Your task to perform on an android device: Is it going to rain this weekend? Image 0: 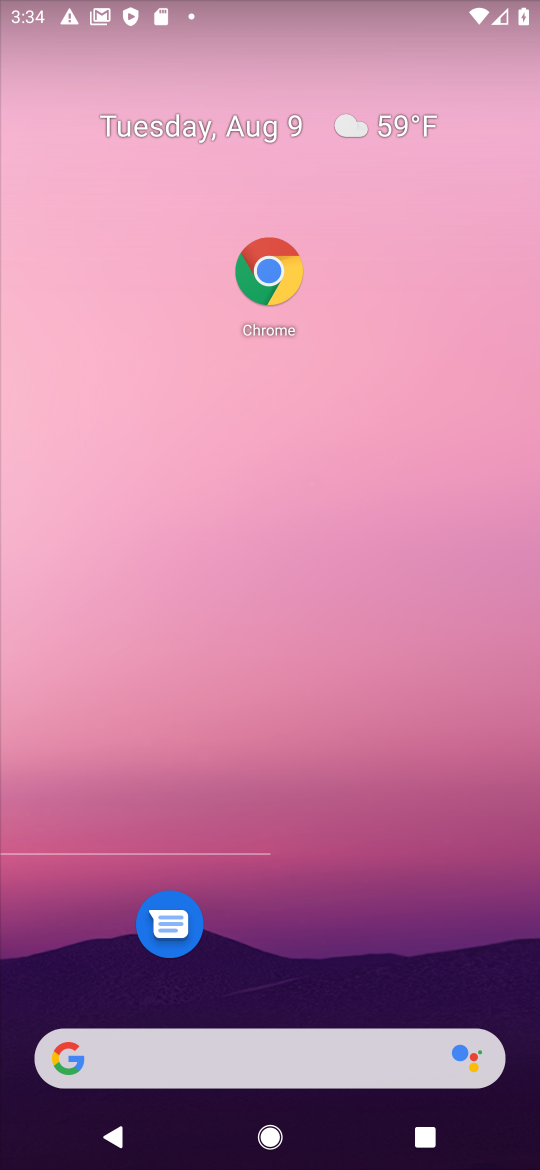
Step 0: press back button
Your task to perform on an android device: Is it going to rain this weekend? Image 1: 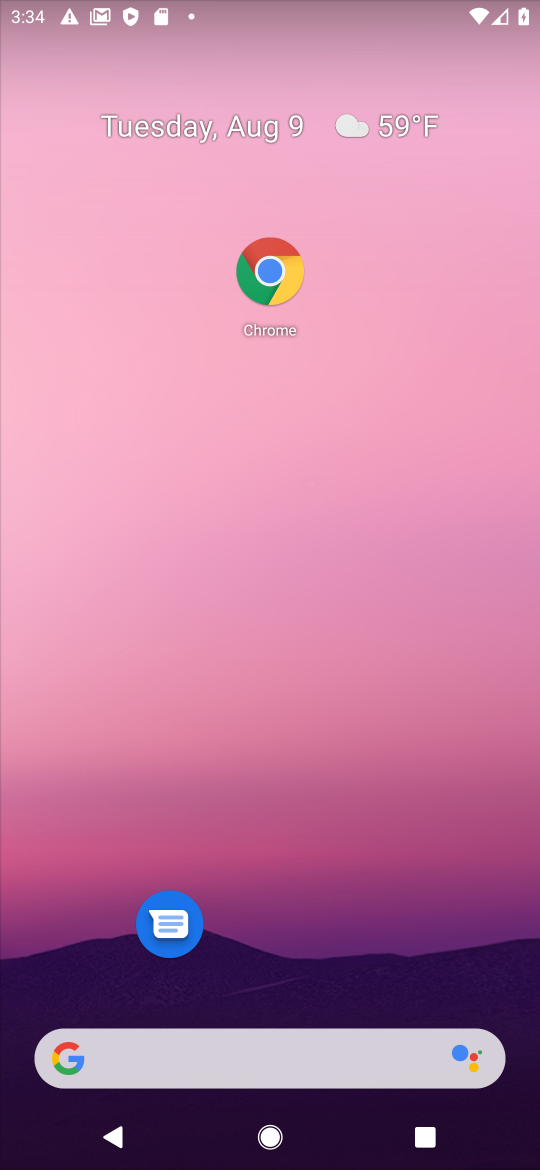
Step 1: drag from (348, 1067) to (220, 83)
Your task to perform on an android device: Is it going to rain this weekend? Image 2: 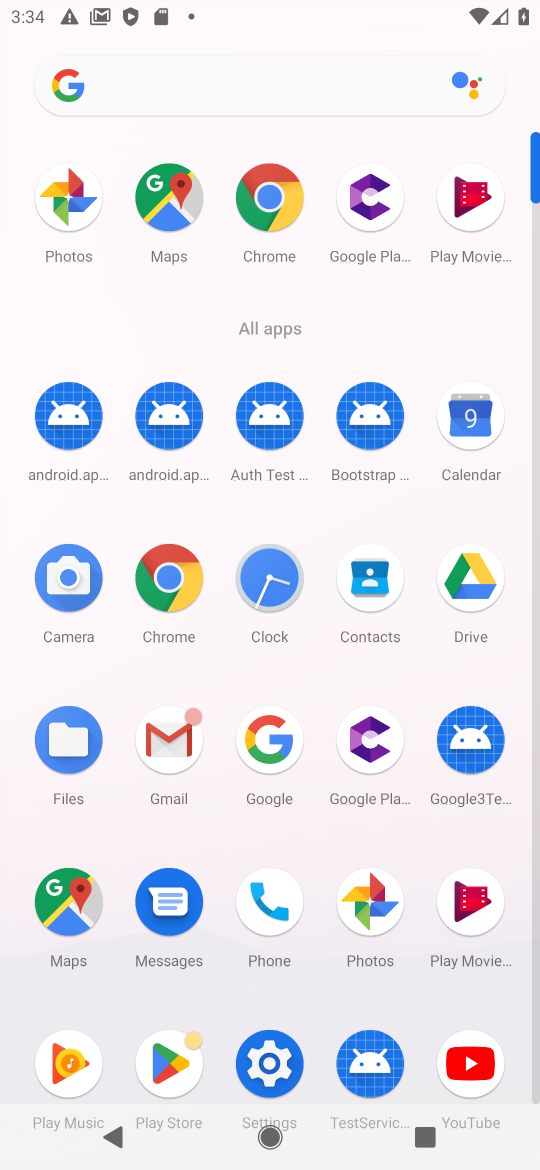
Step 2: click (179, 573)
Your task to perform on an android device: Is it going to rain this weekend? Image 3: 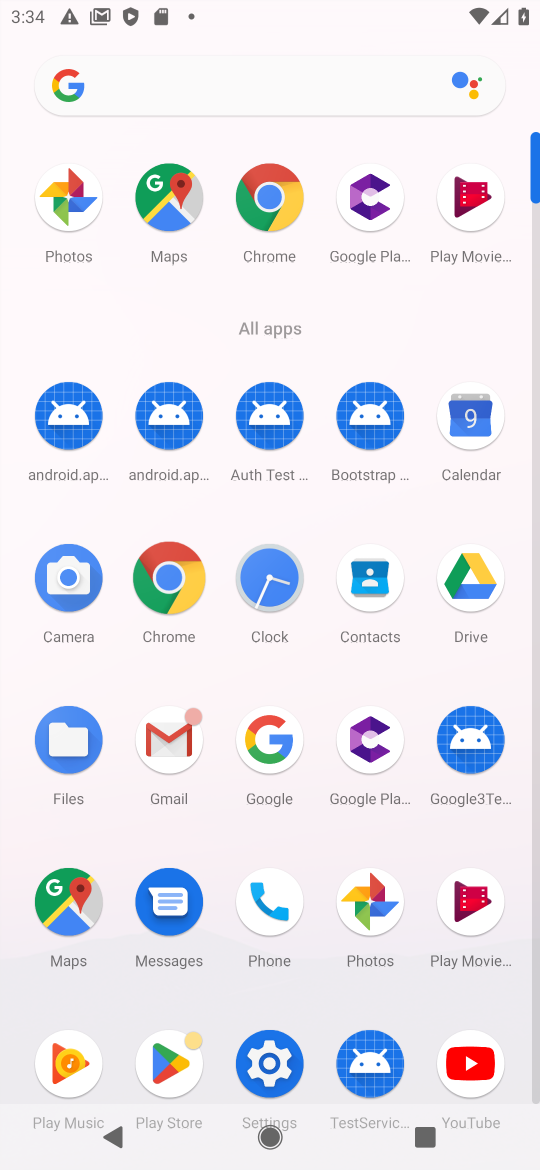
Step 3: click (172, 573)
Your task to perform on an android device: Is it going to rain this weekend? Image 4: 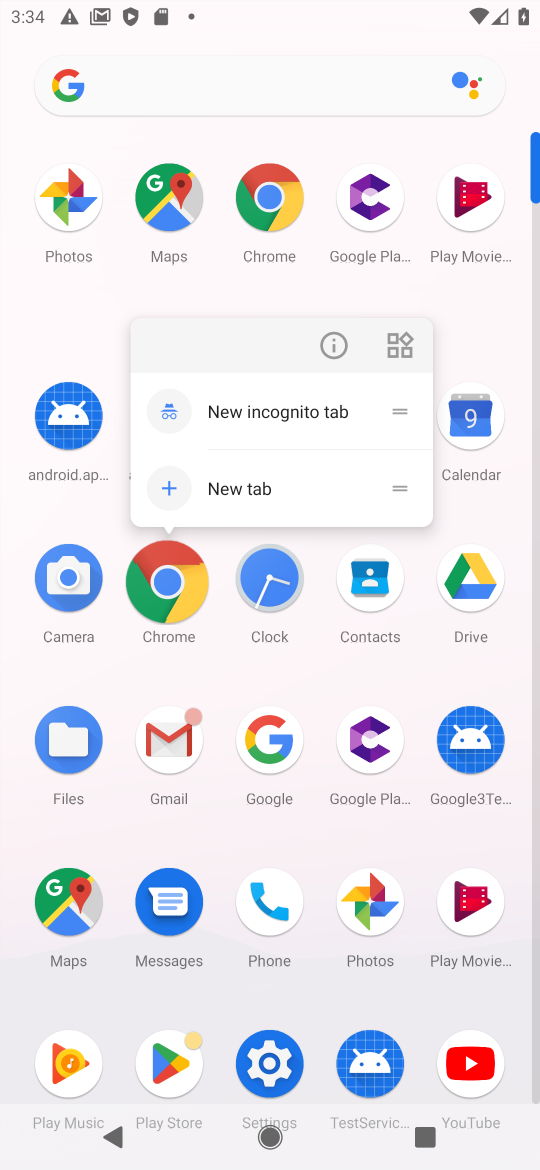
Step 4: click (181, 563)
Your task to perform on an android device: Is it going to rain this weekend? Image 5: 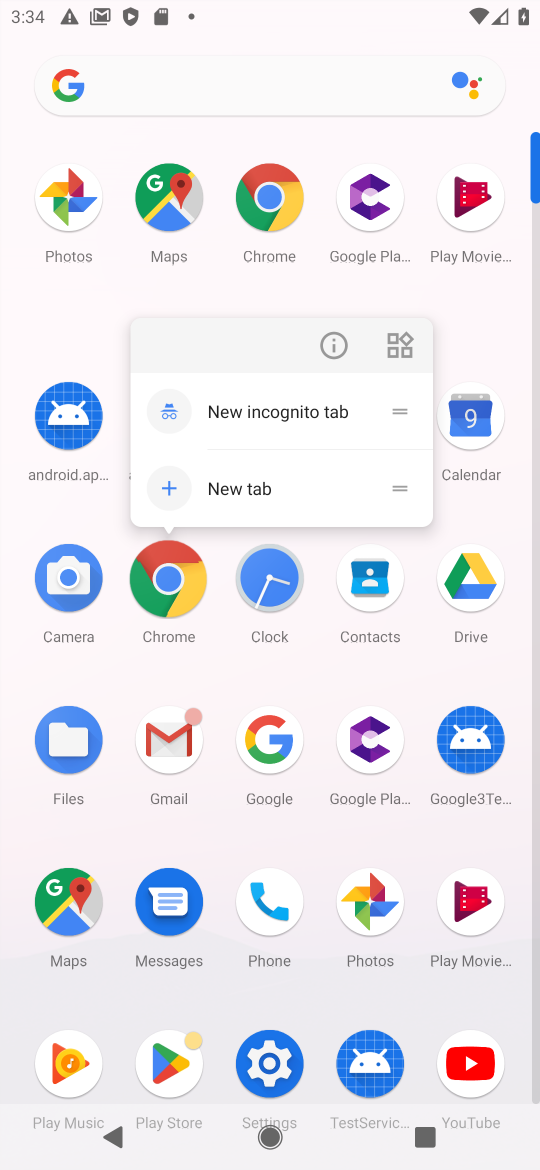
Step 5: click (181, 566)
Your task to perform on an android device: Is it going to rain this weekend? Image 6: 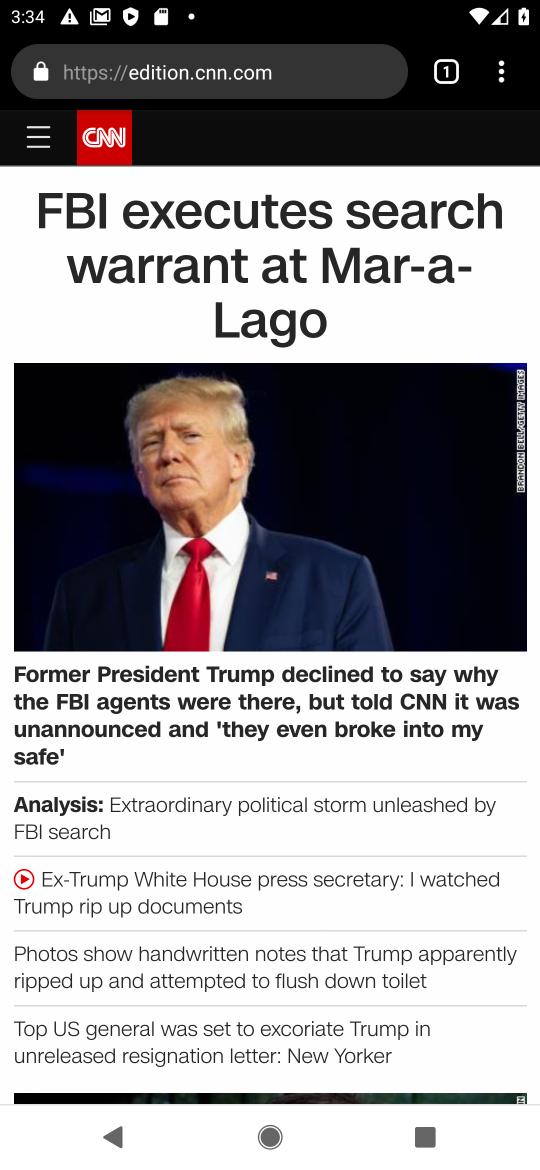
Step 6: click (501, 77)
Your task to perform on an android device: Is it going to rain this weekend? Image 7: 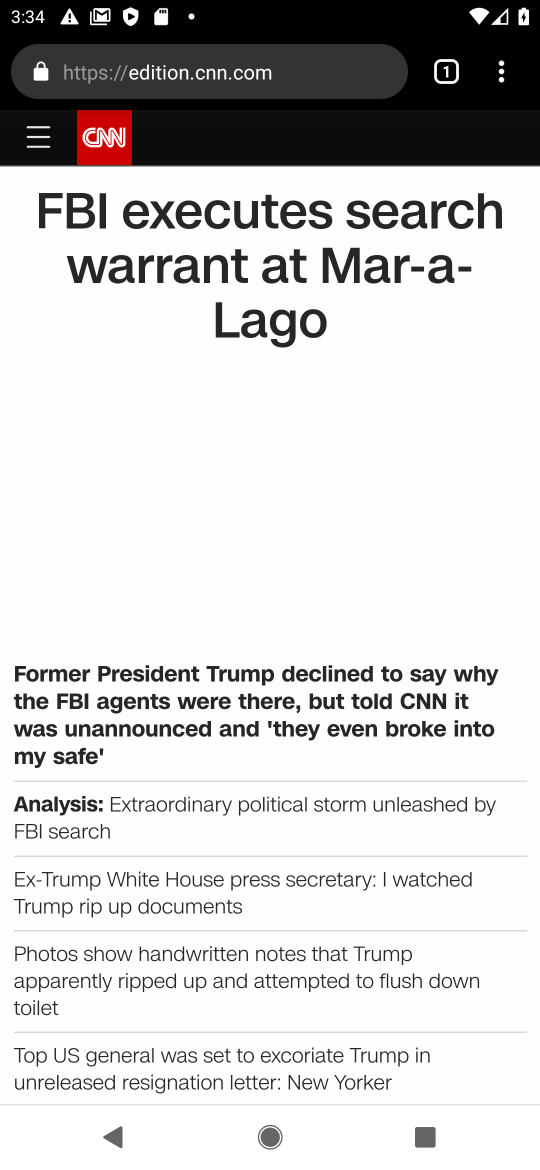
Step 7: click (489, 57)
Your task to perform on an android device: Is it going to rain this weekend? Image 8: 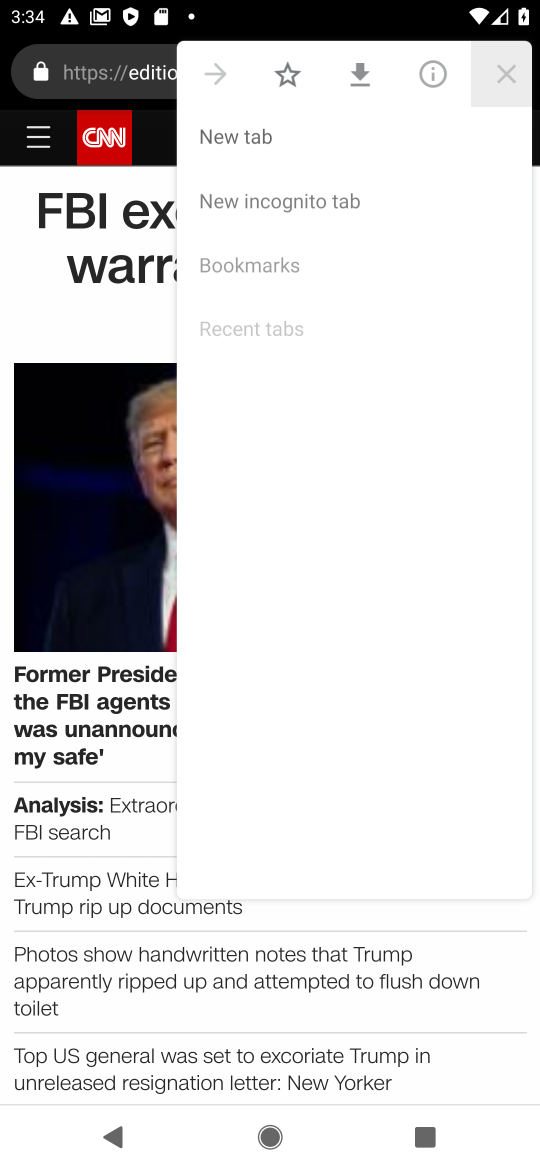
Step 8: click (508, 73)
Your task to perform on an android device: Is it going to rain this weekend? Image 9: 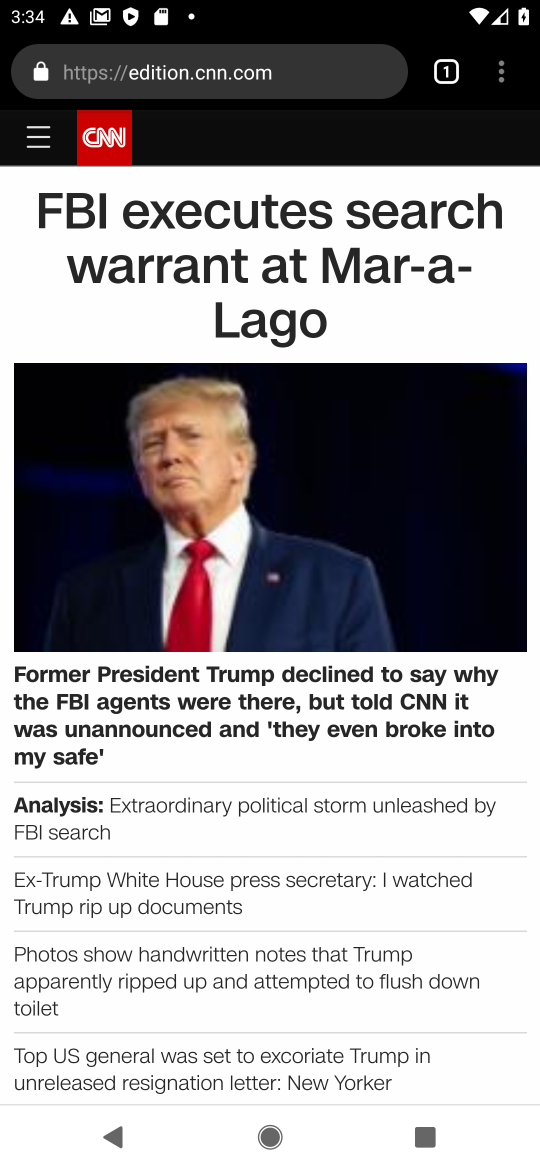
Step 9: drag from (508, 78) to (234, 143)
Your task to perform on an android device: Is it going to rain this weekend? Image 10: 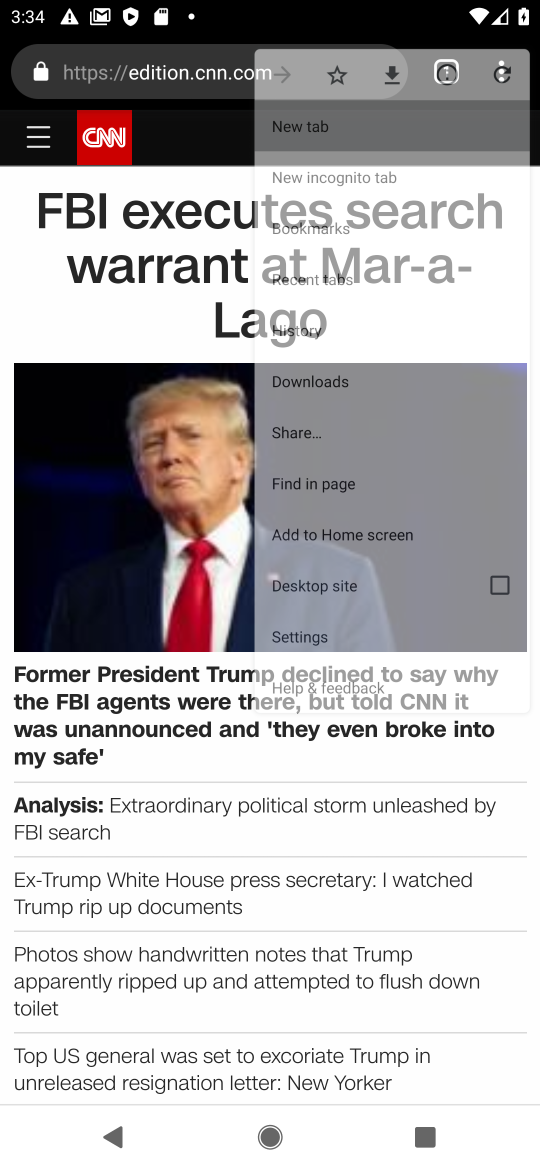
Step 10: click (233, 152)
Your task to perform on an android device: Is it going to rain this weekend? Image 11: 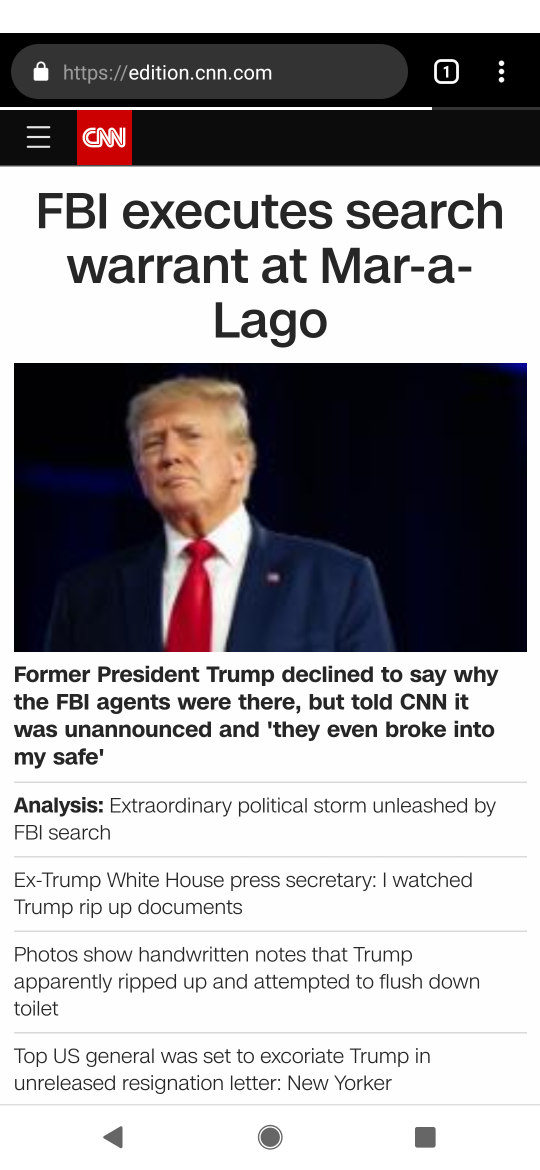
Step 11: click (233, 152)
Your task to perform on an android device: Is it going to rain this weekend? Image 12: 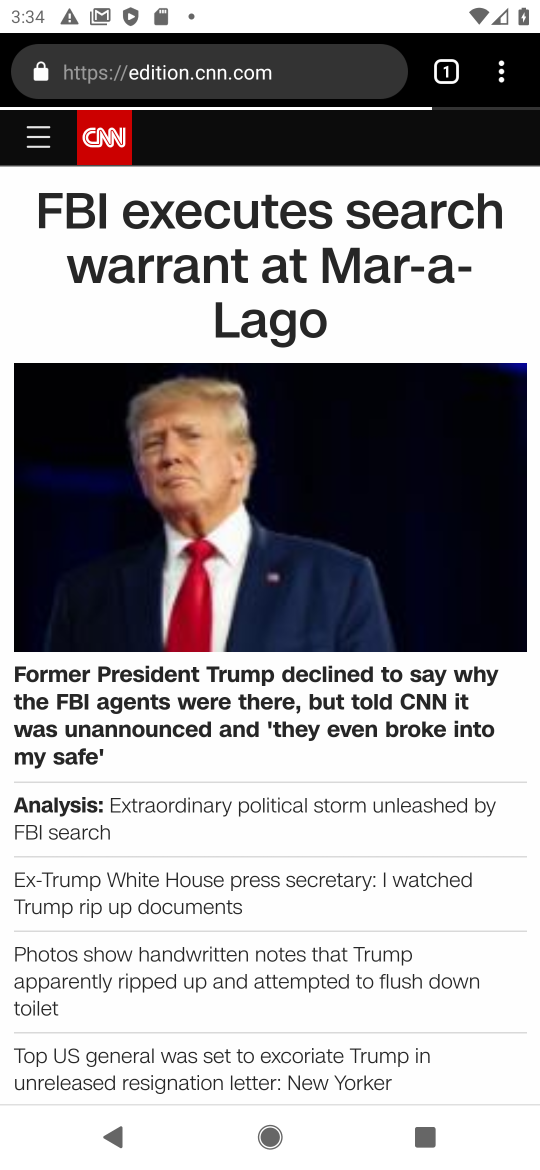
Step 12: click (229, 155)
Your task to perform on an android device: Is it going to rain this weekend? Image 13: 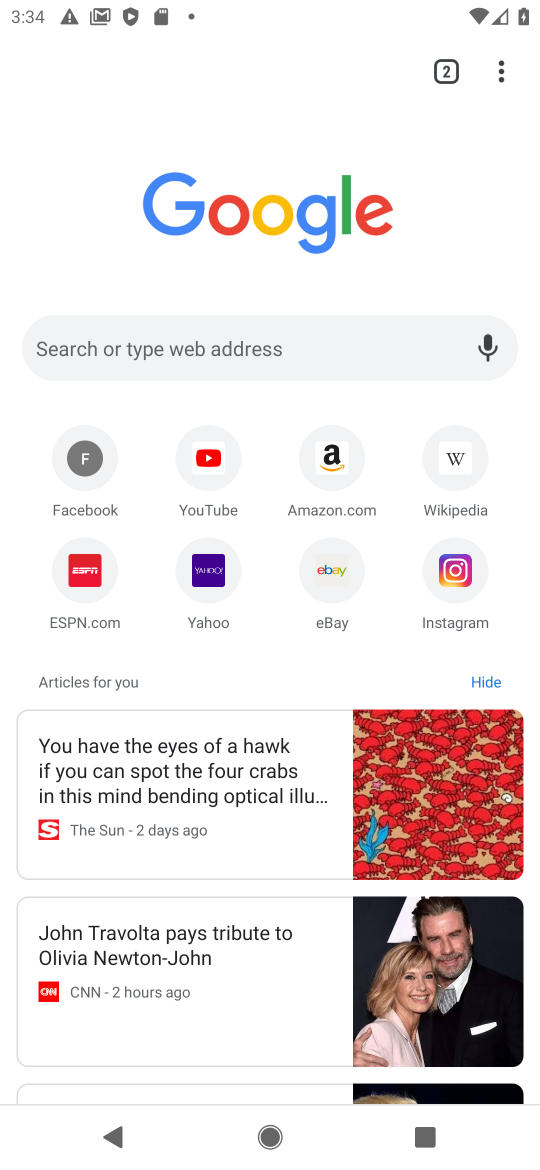
Step 13: click (114, 352)
Your task to perform on an android device: Is it going to rain this weekend? Image 14: 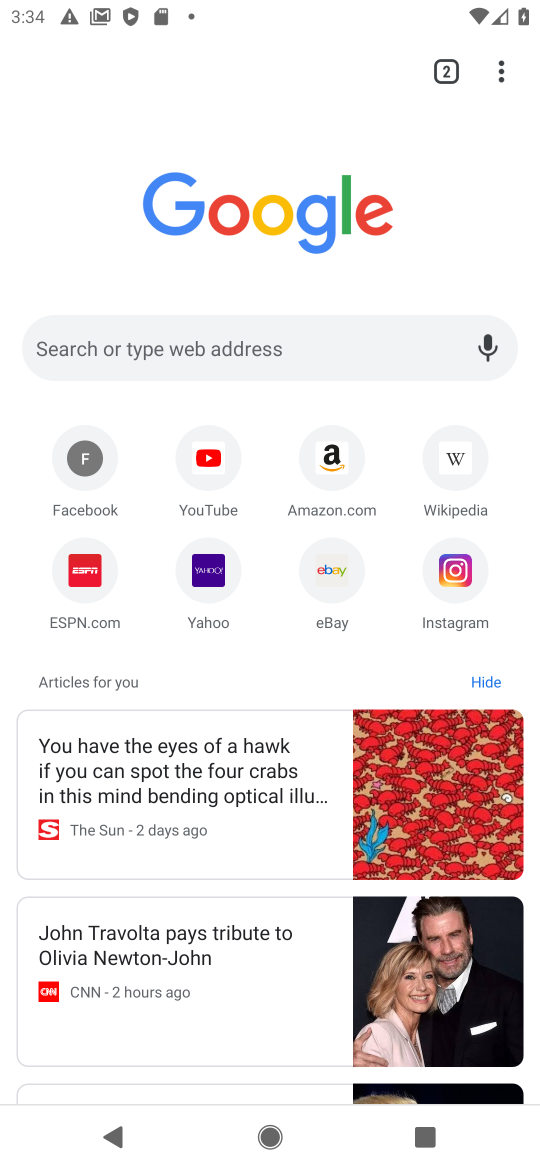
Step 14: click (115, 347)
Your task to perform on an android device: Is it going to rain this weekend? Image 15: 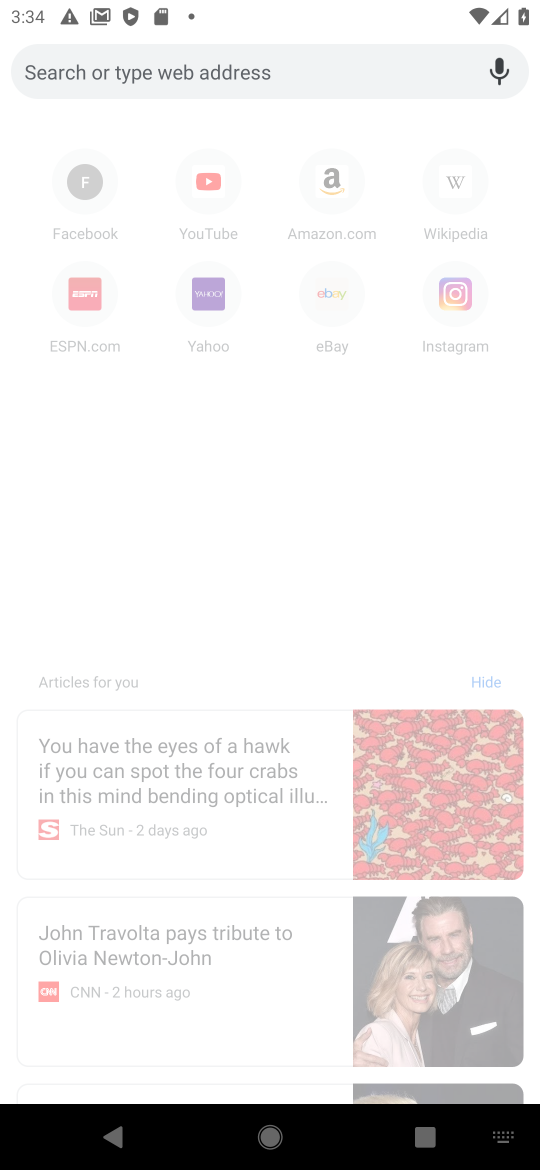
Step 15: type "is it going to rain this weekend"
Your task to perform on an android device: Is it going to rain this weekend? Image 16: 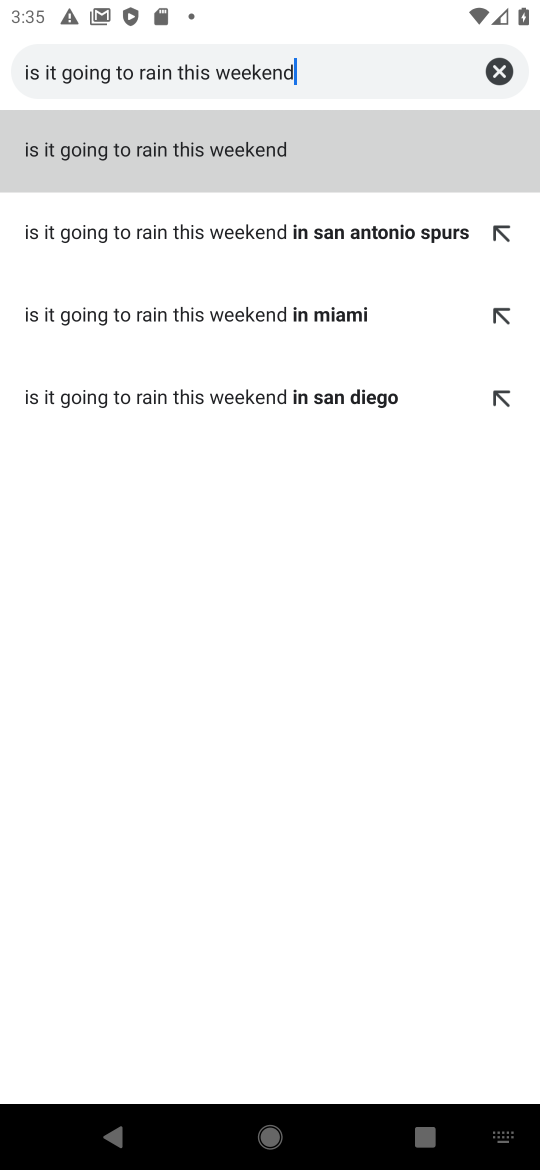
Step 16: click (278, 139)
Your task to perform on an android device: Is it going to rain this weekend? Image 17: 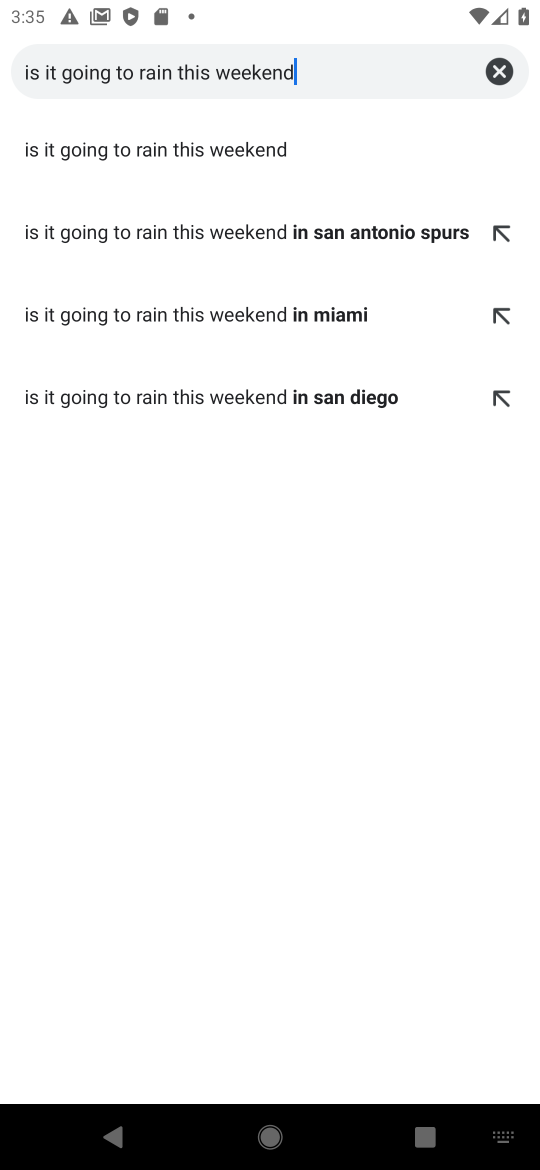
Step 17: click (279, 139)
Your task to perform on an android device: Is it going to rain this weekend? Image 18: 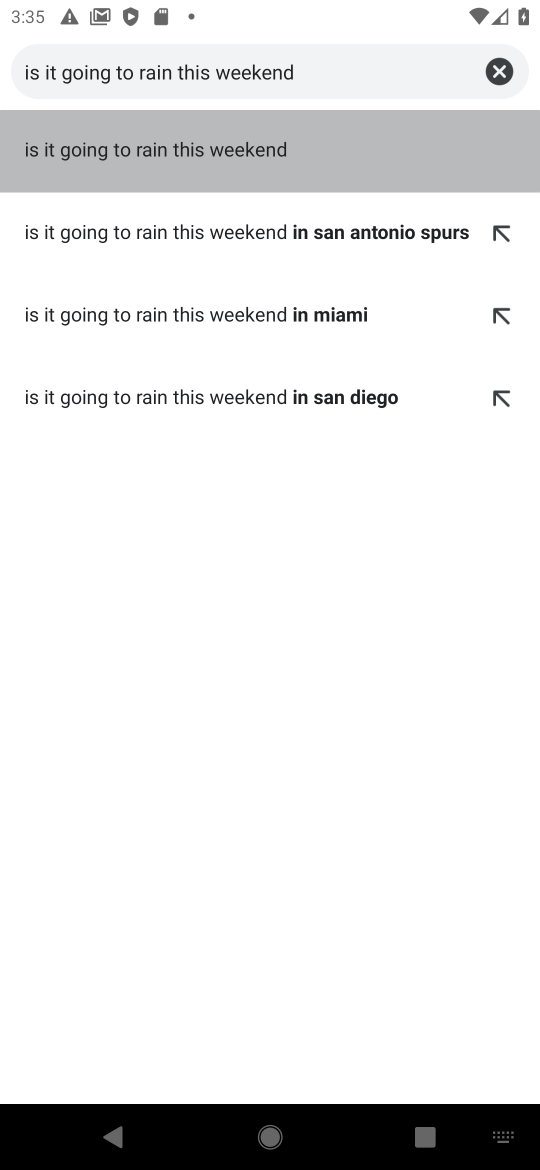
Step 18: click (291, 139)
Your task to perform on an android device: Is it going to rain this weekend? Image 19: 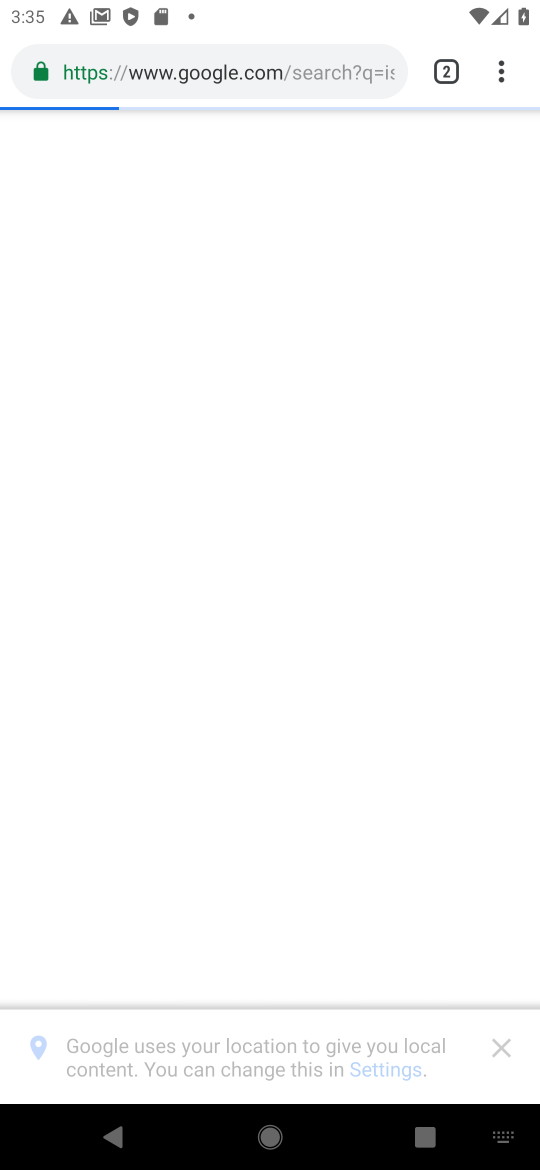
Step 19: click (293, 143)
Your task to perform on an android device: Is it going to rain this weekend? Image 20: 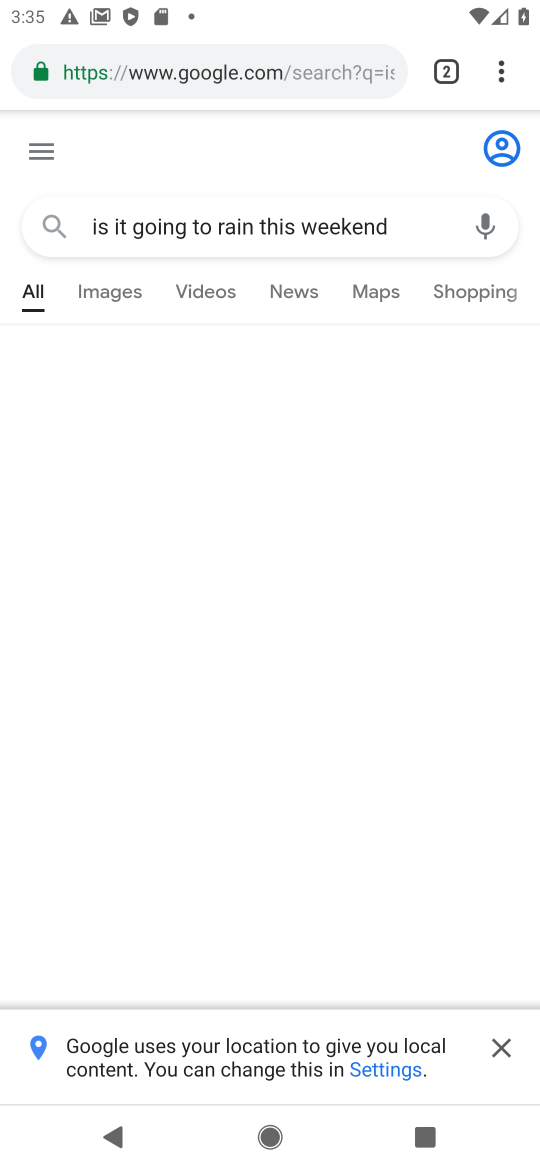
Step 20: task complete